Your task to perform on an android device: turn pop-ups on in chrome Image 0: 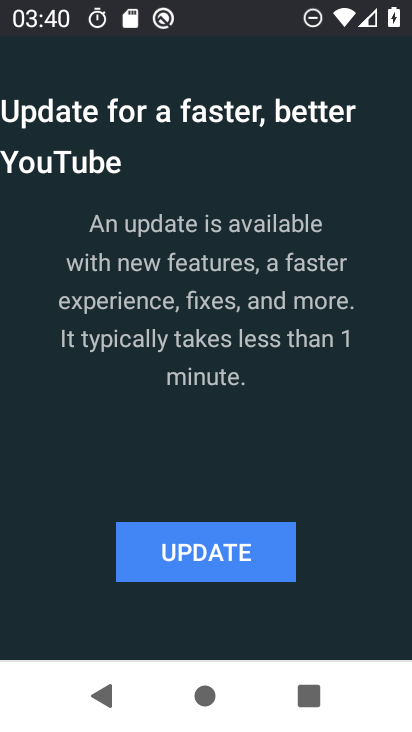
Step 0: press back button
Your task to perform on an android device: turn pop-ups on in chrome Image 1: 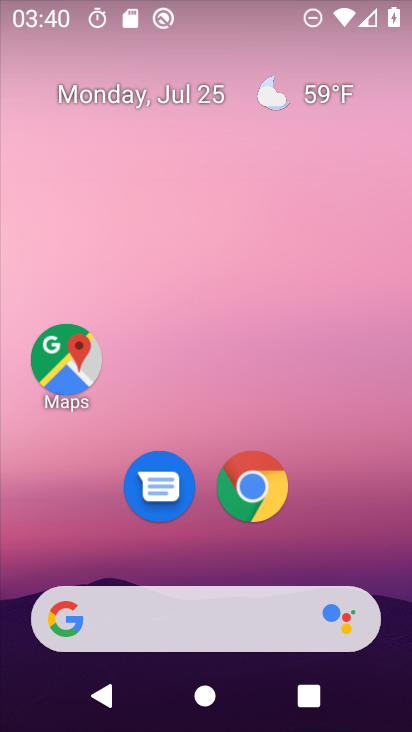
Step 1: click (287, 482)
Your task to perform on an android device: turn pop-ups on in chrome Image 2: 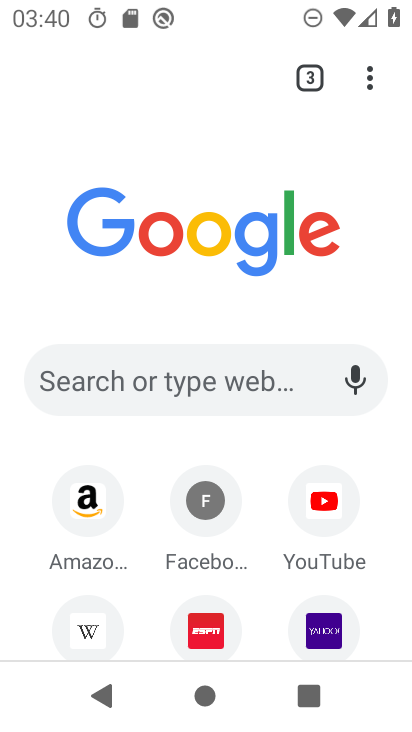
Step 2: drag from (374, 74) to (96, 551)
Your task to perform on an android device: turn pop-ups on in chrome Image 3: 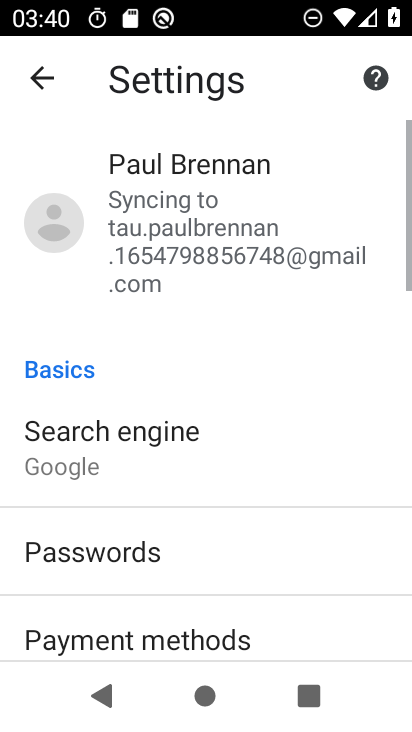
Step 3: drag from (130, 568) to (238, 9)
Your task to perform on an android device: turn pop-ups on in chrome Image 4: 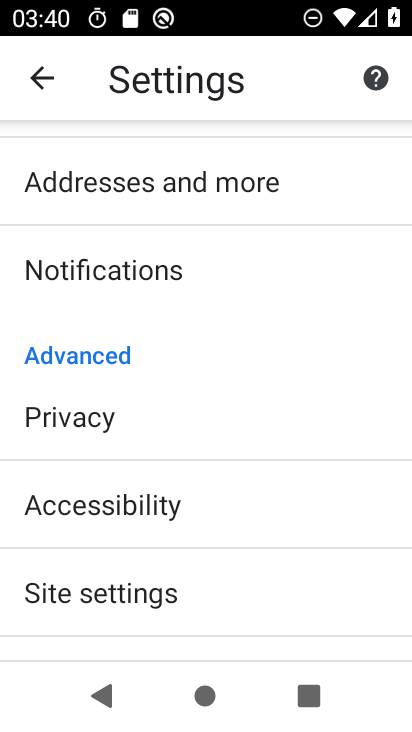
Step 4: drag from (176, 575) to (292, 146)
Your task to perform on an android device: turn pop-ups on in chrome Image 5: 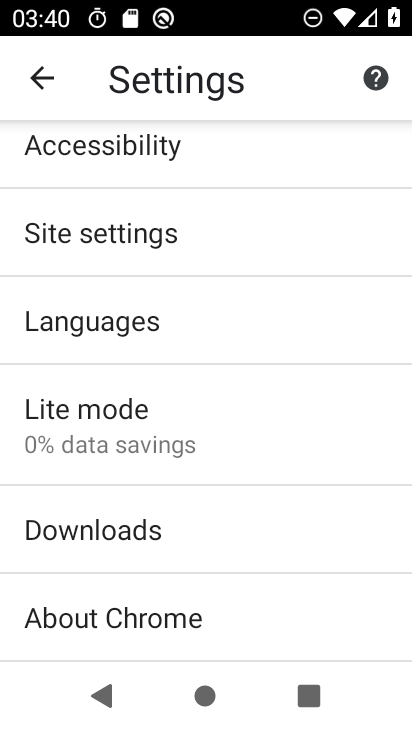
Step 5: click (143, 233)
Your task to perform on an android device: turn pop-ups on in chrome Image 6: 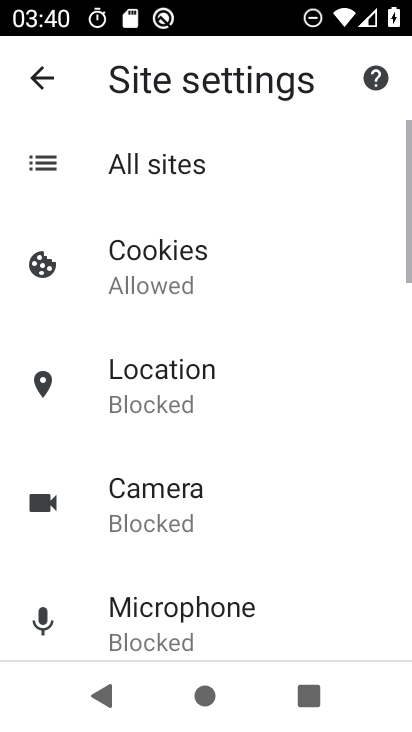
Step 6: drag from (277, 606) to (327, 80)
Your task to perform on an android device: turn pop-ups on in chrome Image 7: 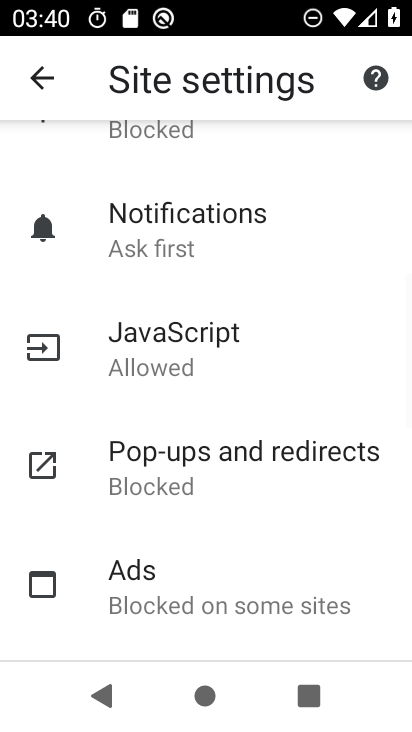
Step 7: click (134, 501)
Your task to perform on an android device: turn pop-ups on in chrome Image 8: 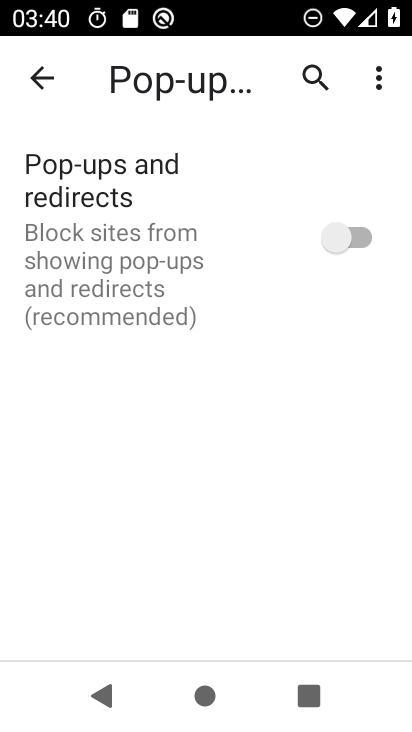
Step 8: click (345, 243)
Your task to perform on an android device: turn pop-ups on in chrome Image 9: 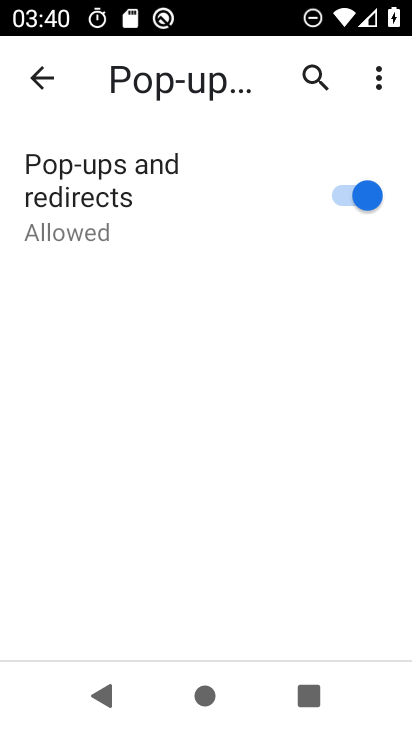
Step 9: task complete